Your task to perform on an android device: Toggle the flashlight Image 0: 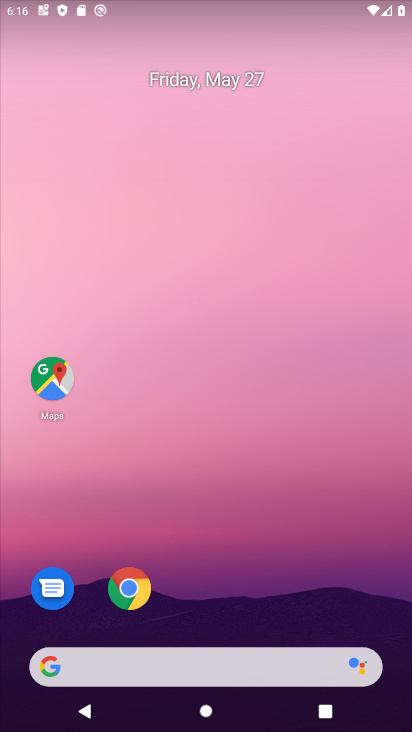
Step 0: drag from (171, 18) to (166, 339)
Your task to perform on an android device: Toggle the flashlight Image 1: 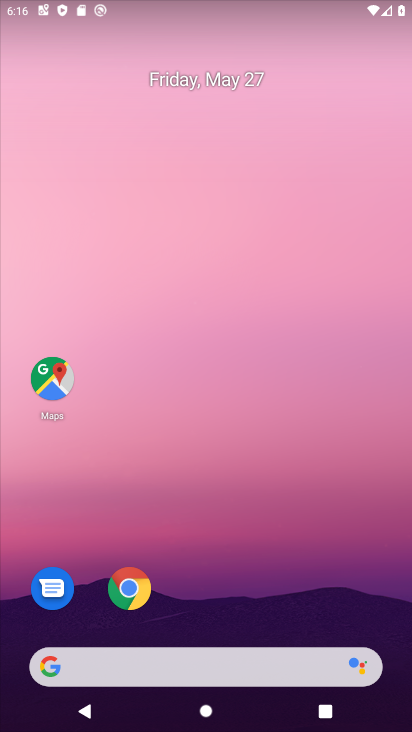
Step 1: task complete